Your task to perform on an android device: stop showing notifications on the lock screen Image 0: 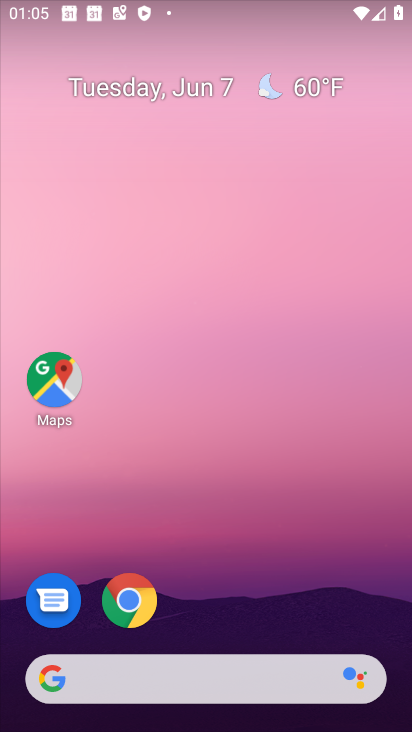
Step 0: drag from (211, 708) to (195, 112)
Your task to perform on an android device: stop showing notifications on the lock screen Image 1: 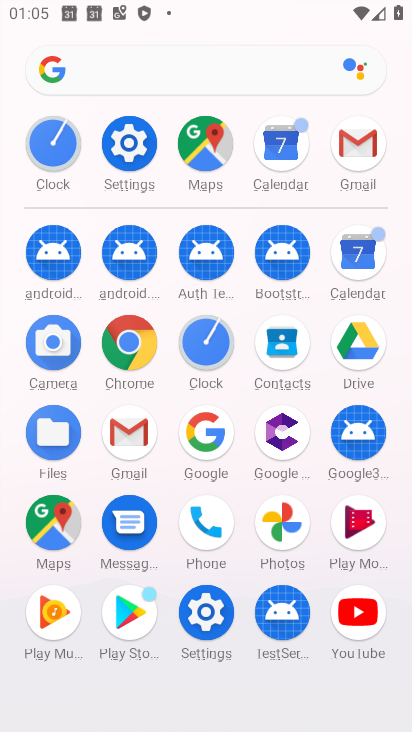
Step 1: click (207, 612)
Your task to perform on an android device: stop showing notifications on the lock screen Image 2: 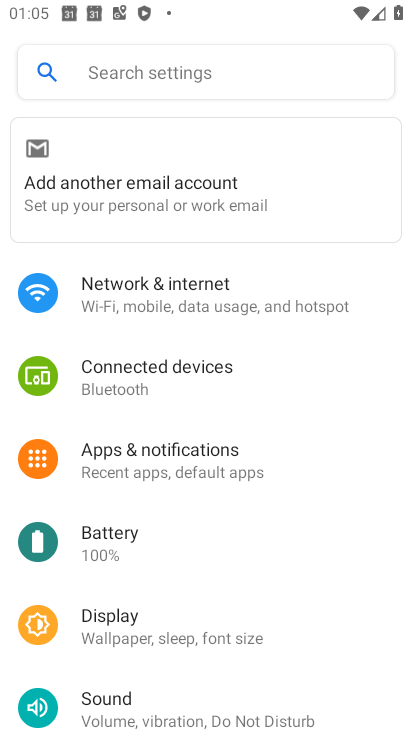
Step 2: click (178, 464)
Your task to perform on an android device: stop showing notifications on the lock screen Image 3: 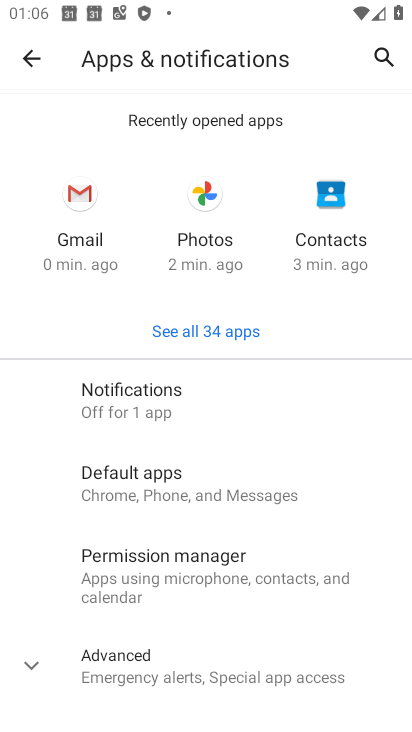
Step 3: click (119, 406)
Your task to perform on an android device: stop showing notifications on the lock screen Image 4: 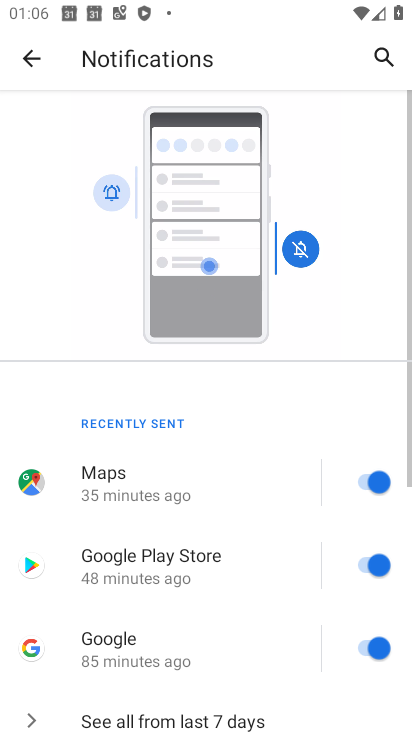
Step 4: task complete